Your task to perform on an android device: open a new tab in the chrome app Image 0: 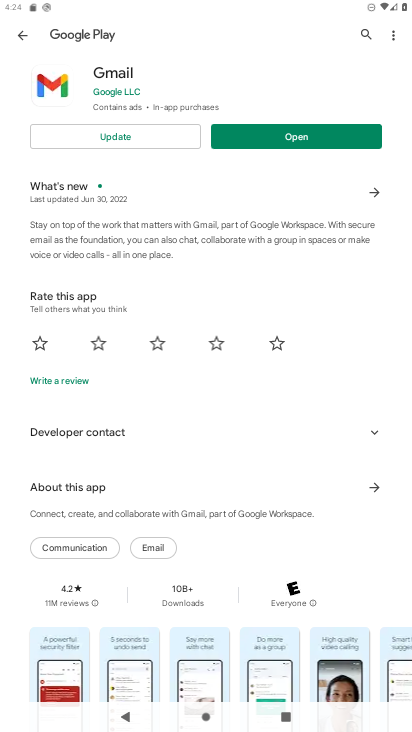
Step 0: press home button
Your task to perform on an android device: open a new tab in the chrome app Image 1: 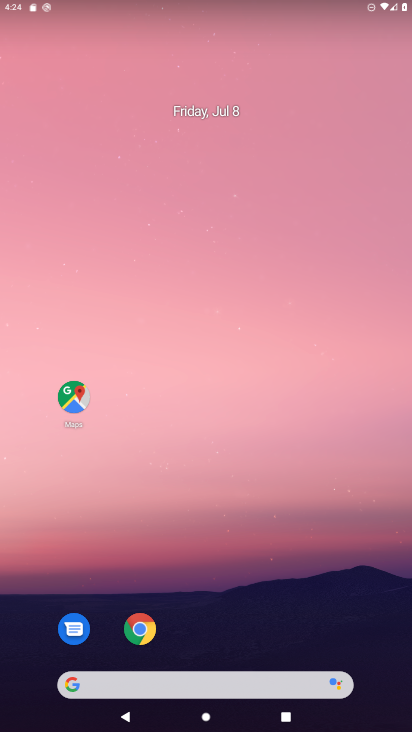
Step 1: click (159, 630)
Your task to perform on an android device: open a new tab in the chrome app Image 2: 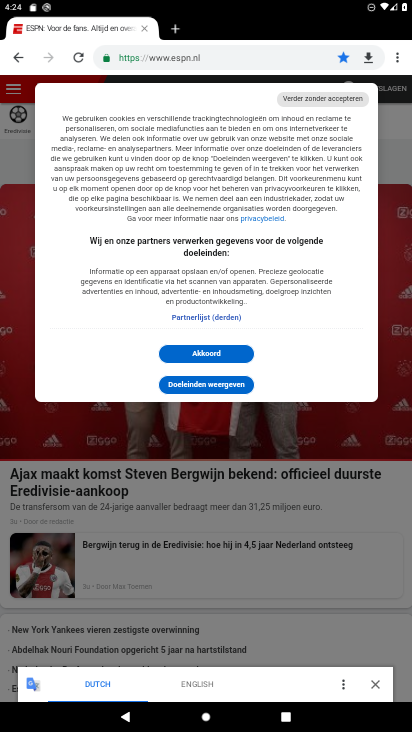
Step 2: click (394, 56)
Your task to perform on an android device: open a new tab in the chrome app Image 3: 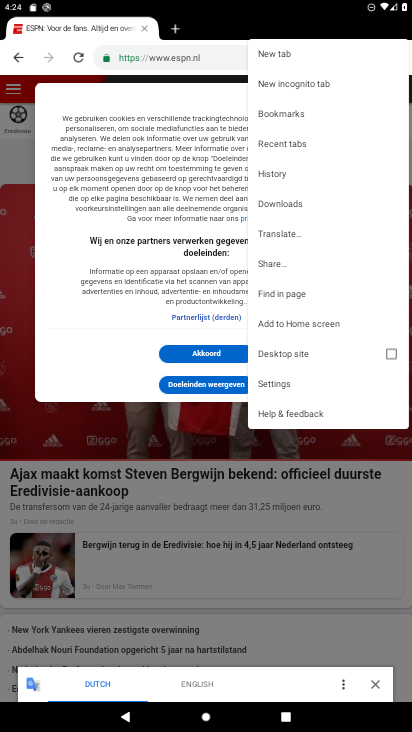
Step 3: click (308, 375)
Your task to perform on an android device: open a new tab in the chrome app Image 4: 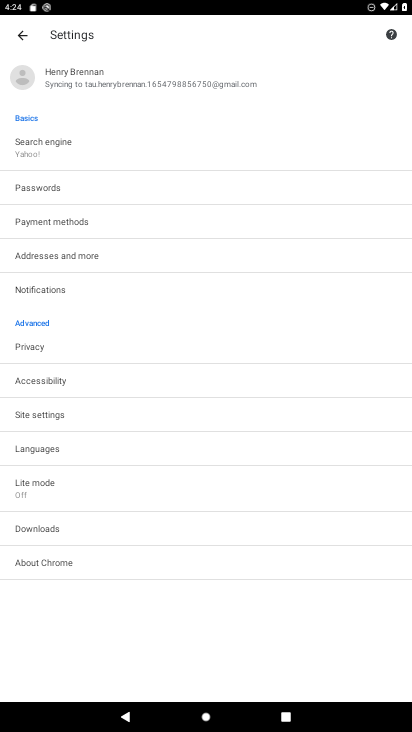
Step 4: click (22, 24)
Your task to perform on an android device: open a new tab in the chrome app Image 5: 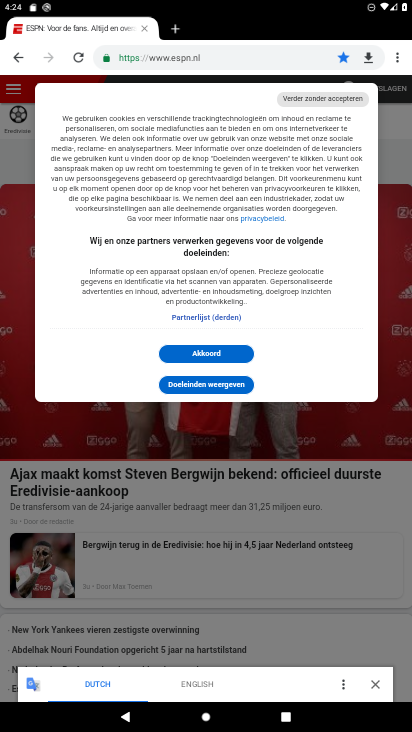
Step 5: click (180, 36)
Your task to perform on an android device: open a new tab in the chrome app Image 6: 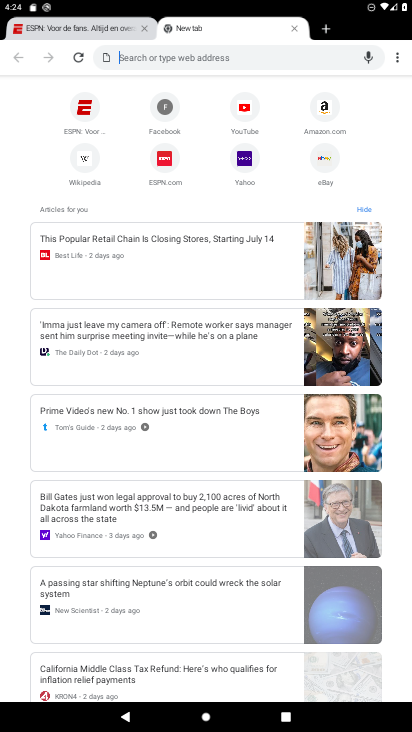
Step 6: task complete